Your task to perform on an android device: Open CNN.com Image 0: 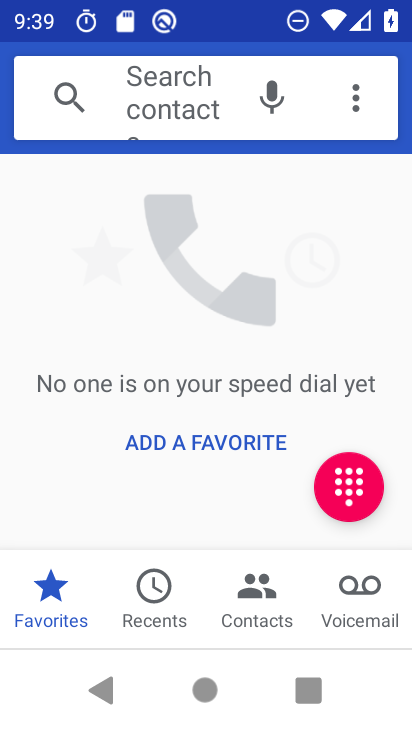
Step 0: press home button
Your task to perform on an android device: Open CNN.com Image 1: 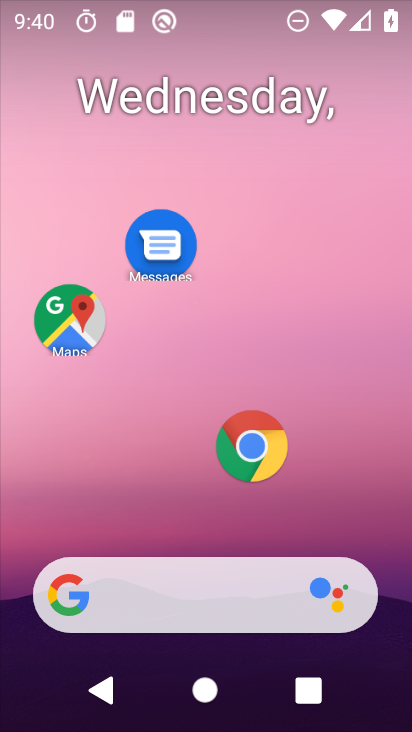
Step 1: click (256, 439)
Your task to perform on an android device: Open CNN.com Image 2: 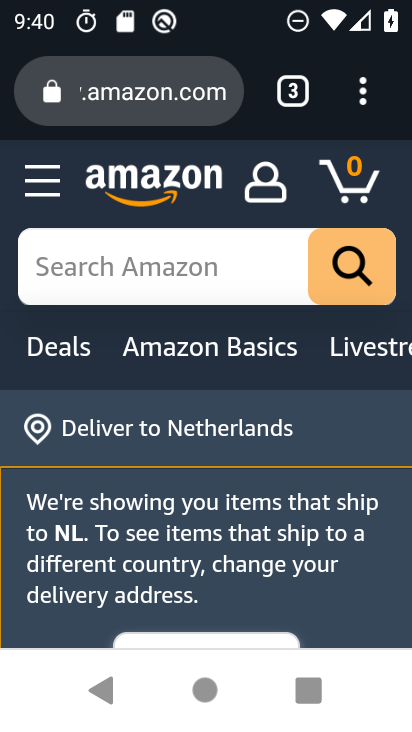
Step 2: click (297, 96)
Your task to perform on an android device: Open CNN.com Image 3: 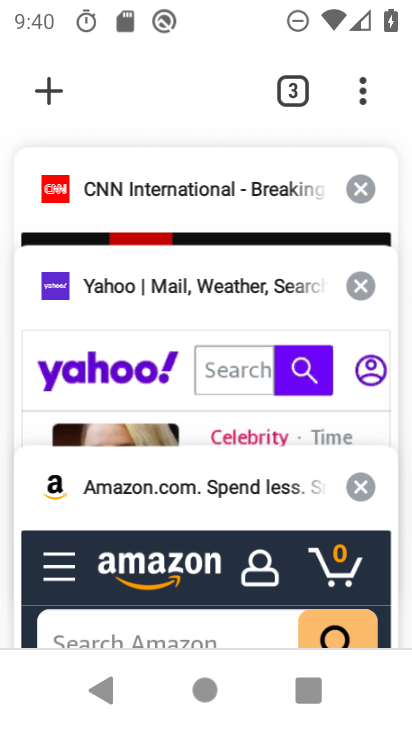
Step 3: click (212, 203)
Your task to perform on an android device: Open CNN.com Image 4: 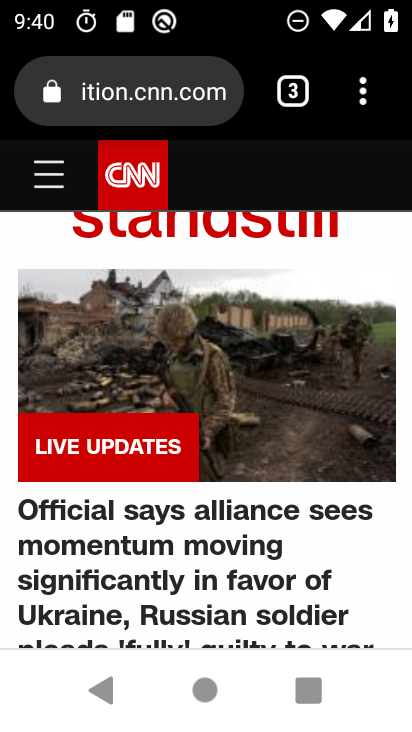
Step 4: task complete